Your task to perform on an android device: turn off wifi Image 0: 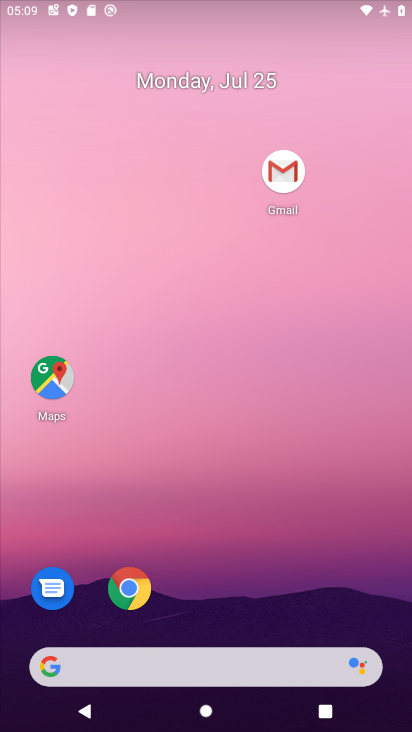
Step 0: drag from (298, 572) to (178, 39)
Your task to perform on an android device: turn off wifi Image 1: 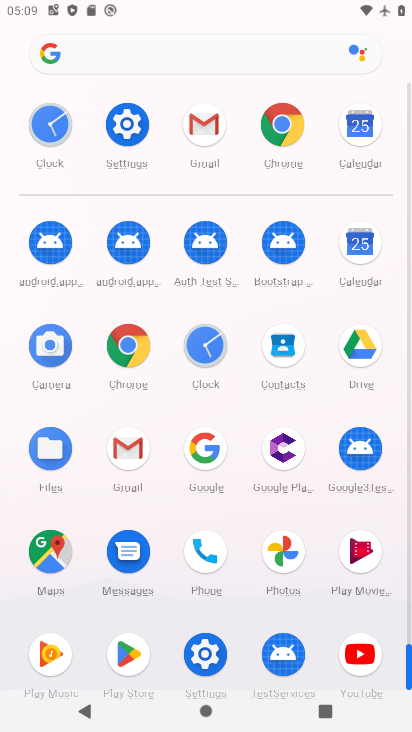
Step 1: click (124, 130)
Your task to perform on an android device: turn off wifi Image 2: 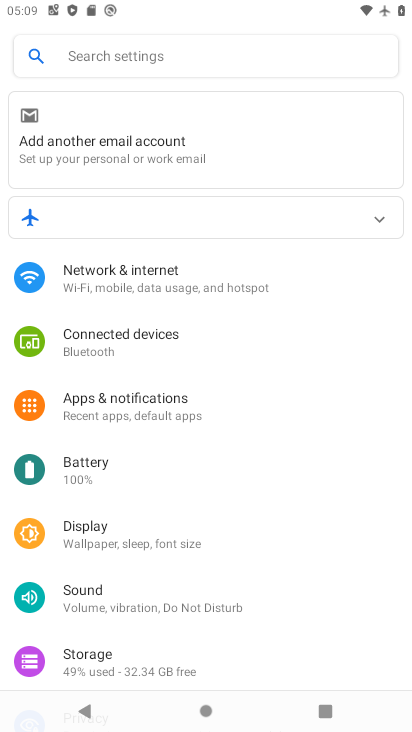
Step 2: click (168, 284)
Your task to perform on an android device: turn off wifi Image 3: 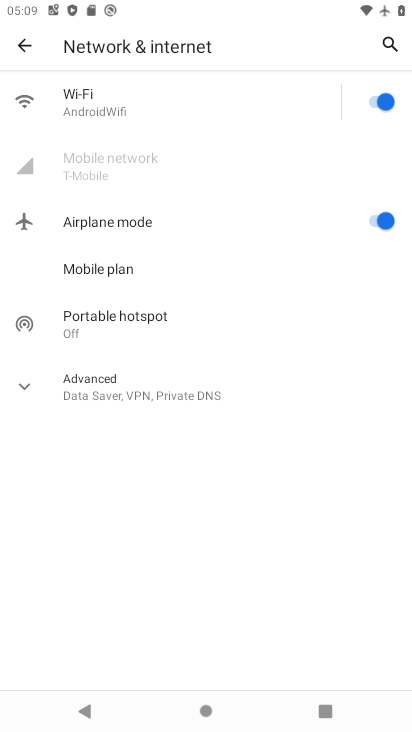
Step 3: click (379, 96)
Your task to perform on an android device: turn off wifi Image 4: 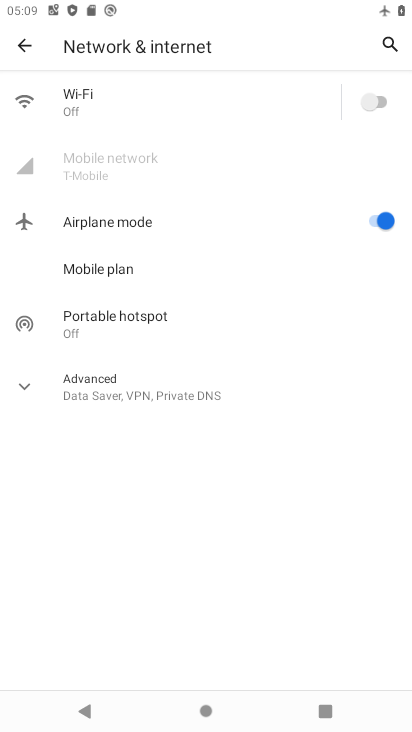
Step 4: task complete